Your task to perform on an android device: turn off notifications settings in the gmail app Image 0: 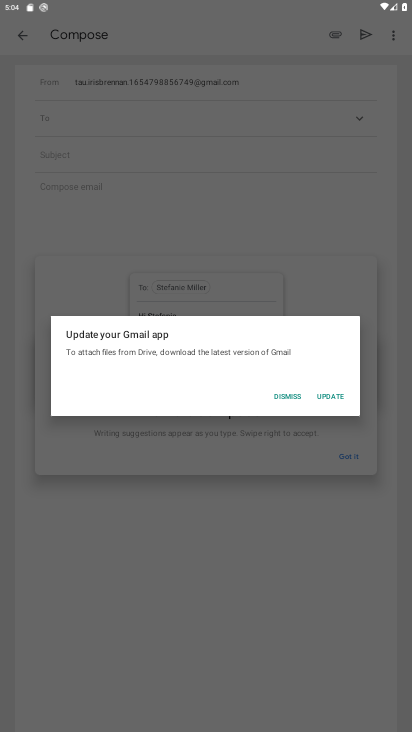
Step 0: press home button
Your task to perform on an android device: turn off notifications settings in the gmail app Image 1: 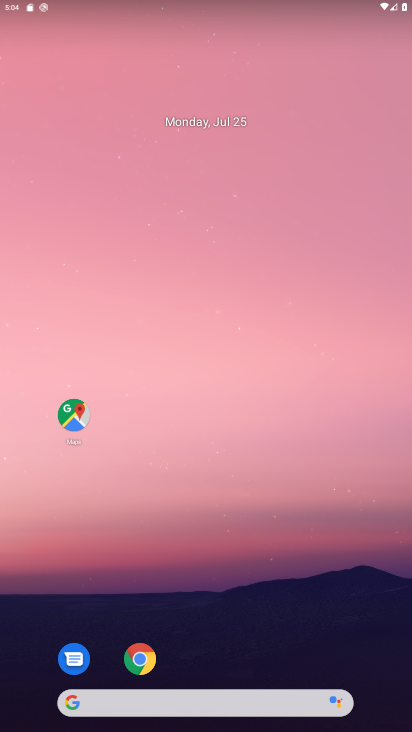
Step 1: drag from (333, 618) to (190, 23)
Your task to perform on an android device: turn off notifications settings in the gmail app Image 2: 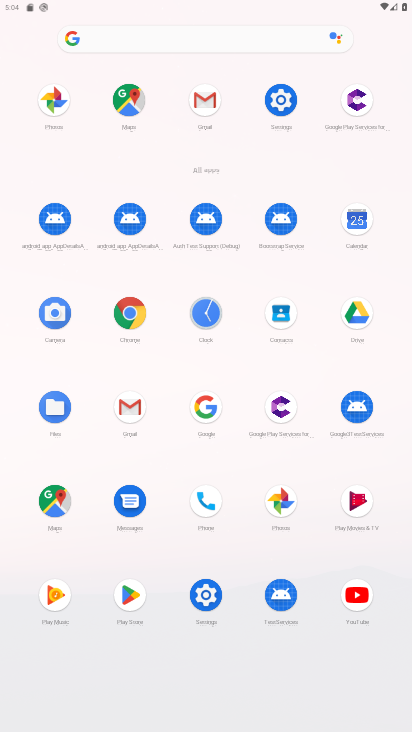
Step 2: click (198, 103)
Your task to perform on an android device: turn off notifications settings in the gmail app Image 3: 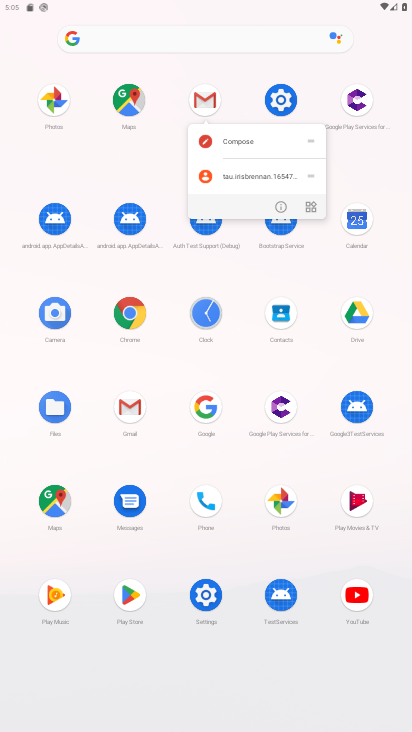
Step 3: click (198, 103)
Your task to perform on an android device: turn off notifications settings in the gmail app Image 4: 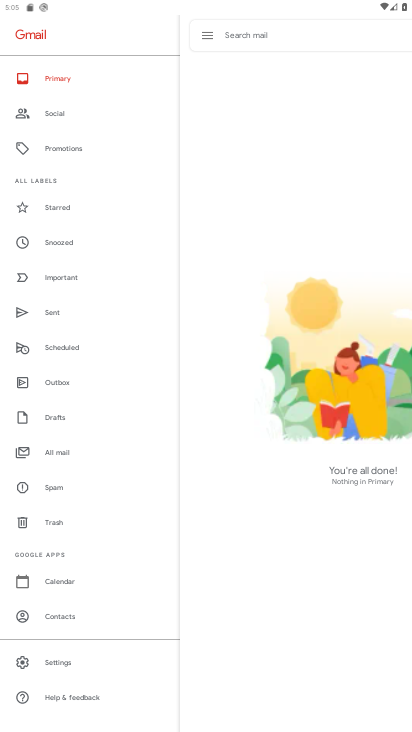
Step 4: click (71, 665)
Your task to perform on an android device: turn off notifications settings in the gmail app Image 5: 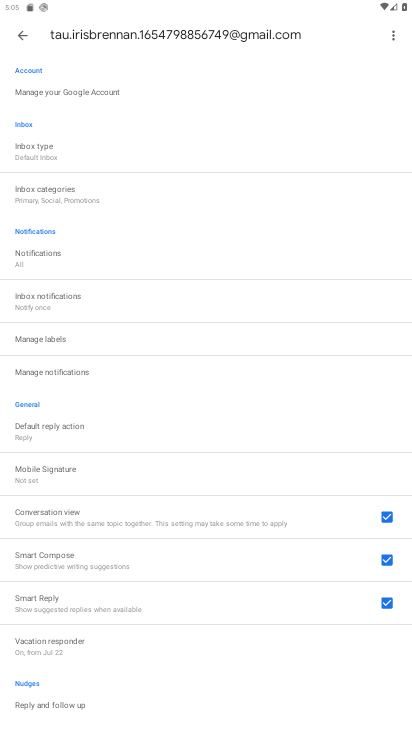
Step 5: click (105, 368)
Your task to perform on an android device: turn off notifications settings in the gmail app Image 6: 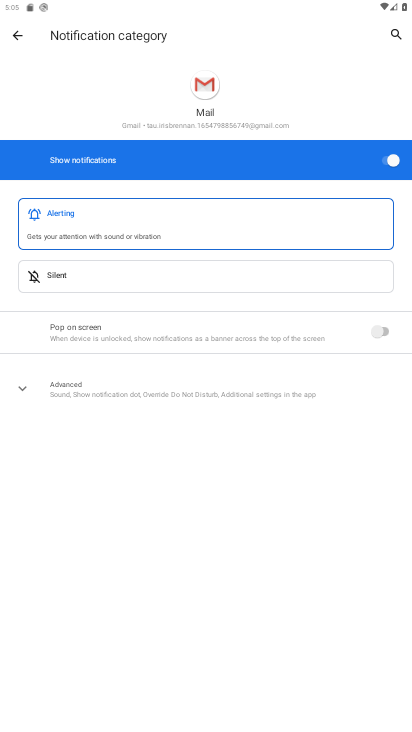
Step 6: task complete